Your task to perform on an android device: Search for pizza restaurants on Maps Image 0: 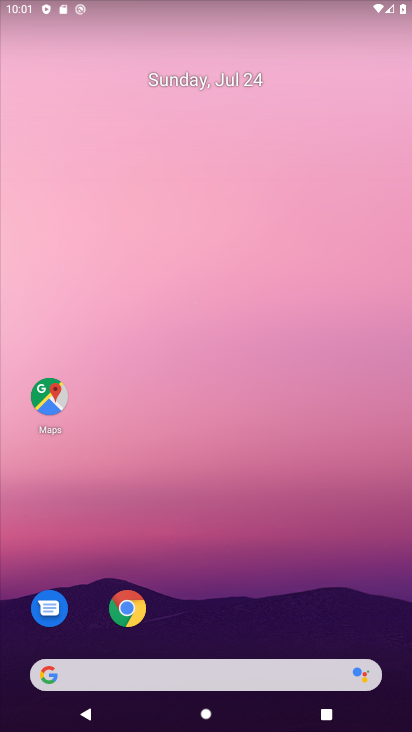
Step 0: click (58, 392)
Your task to perform on an android device: Search for pizza restaurants on Maps Image 1: 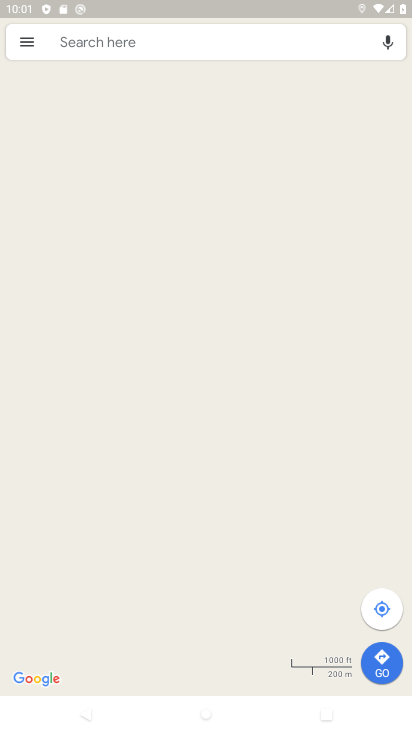
Step 1: click (107, 43)
Your task to perform on an android device: Search for pizza restaurants on Maps Image 2: 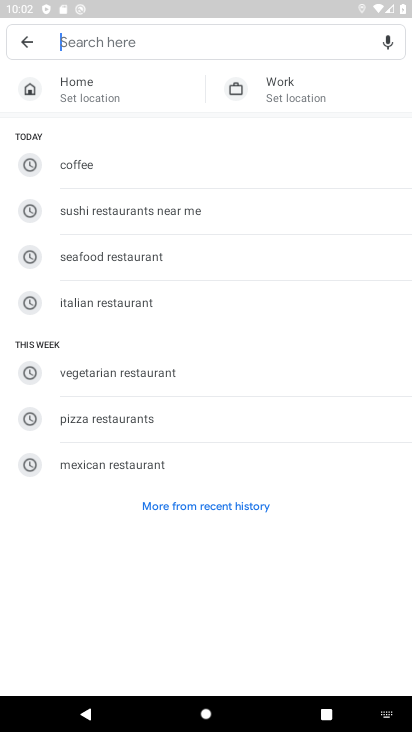
Step 2: type "pizza restaurants"
Your task to perform on an android device: Search for pizza restaurants on Maps Image 3: 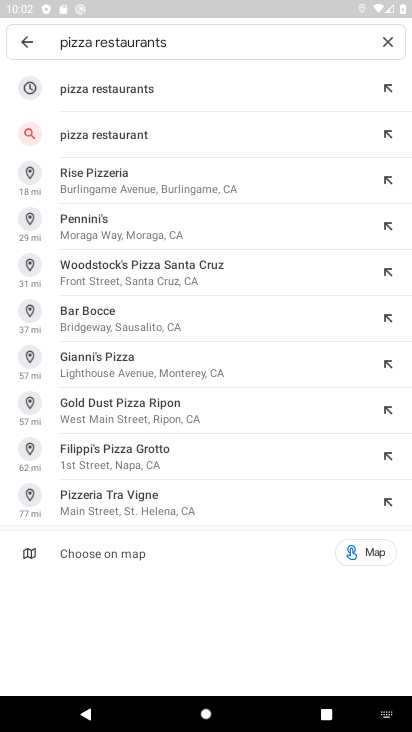
Step 3: click (145, 84)
Your task to perform on an android device: Search for pizza restaurants on Maps Image 4: 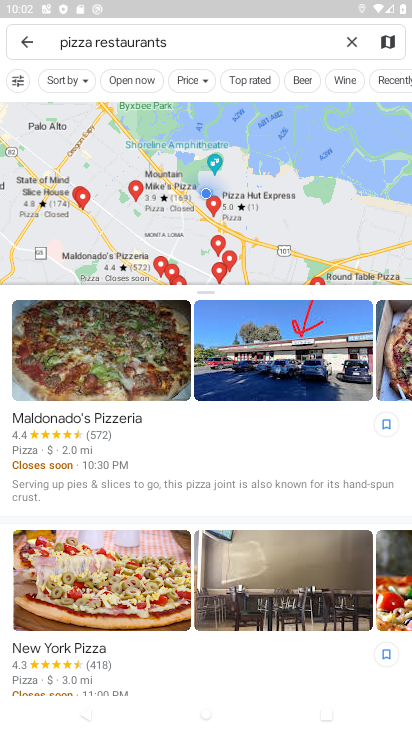
Step 4: task complete